Your task to perform on an android device: change alarm snooze length Image 0: 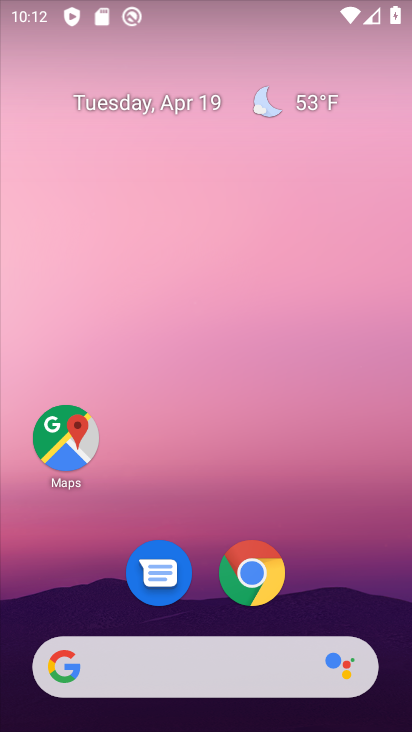
Step 0: drag from (200, 722) to (200, 90)
Your task to perform on an android device: change alarm snooze length Image 1: 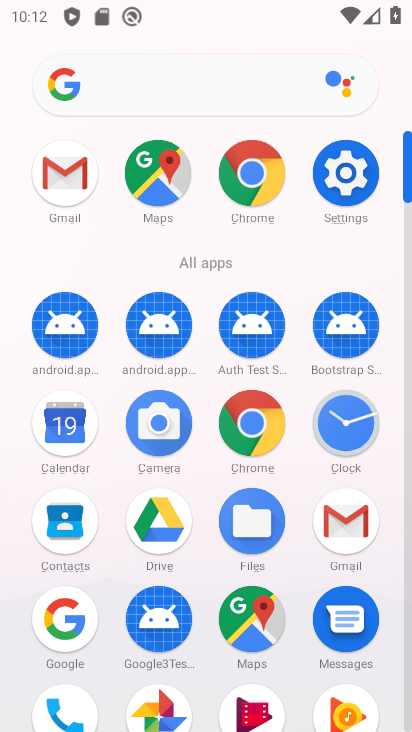
Step 1: click (341, 419)
Your task to perform on an android device: change alarm snooze length Image 2: 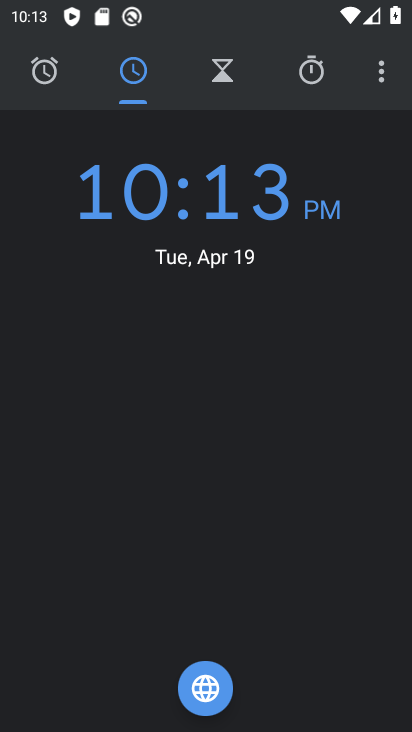
Step 2: click (381, 79)
Your task to perform on an android device: change alarm snooze length Image 3: 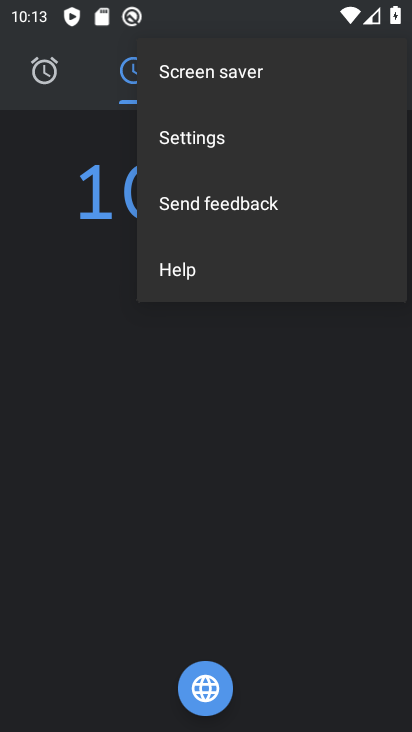
Step 3: click (188, 139)
Your task to perform on an android device: change alarm snooze length Image 4: 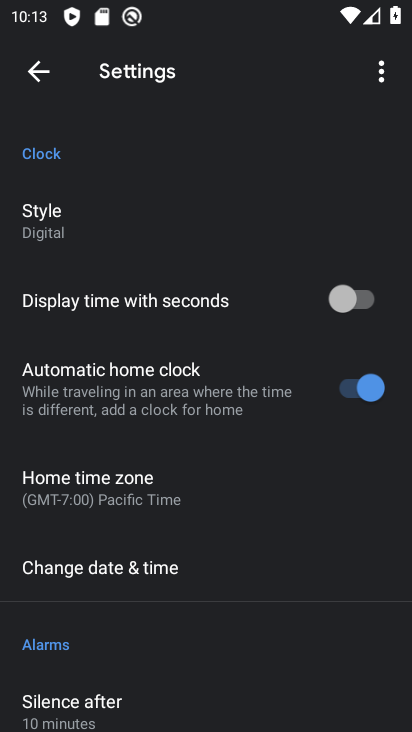
Step 4: drag from (223, 648) to (230, 248)
Your task to perform on an android device: change alarm snooze length Image 5: 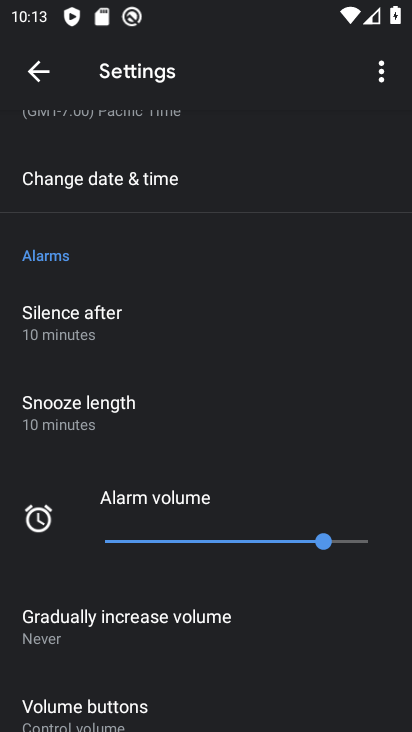
Step 5: drag from (229, 270) to (224, 200)
Your task to perform on an android device: change alarm snooze length Image 6: 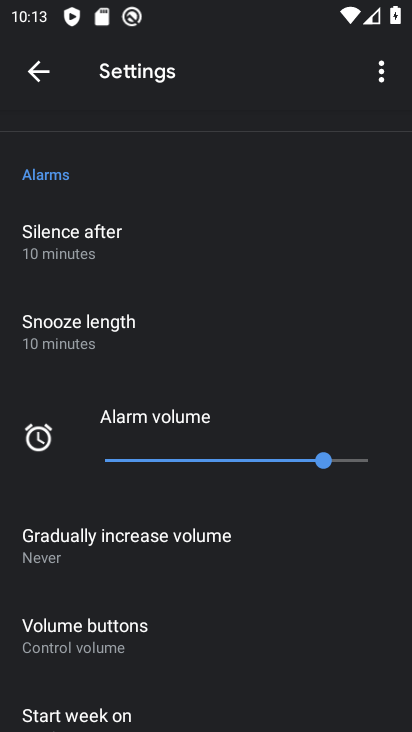
Step 6: click (54, 319)
Your task to perform on an android device: change alarm snooze length Image 7: 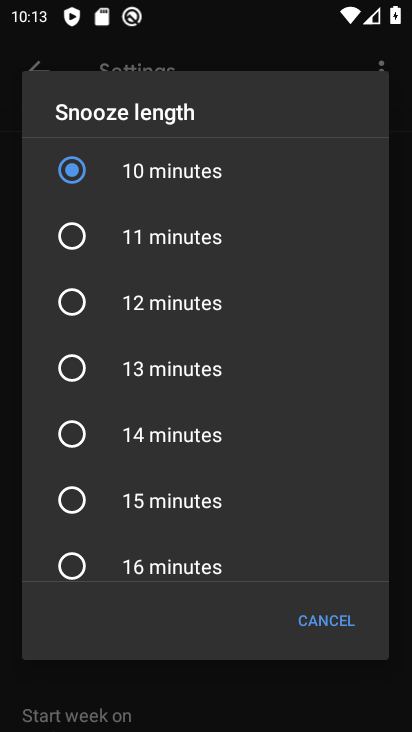
Step 7: click (78, 498)
Your task to perform on an android device: change alarm snooze length Image 8: 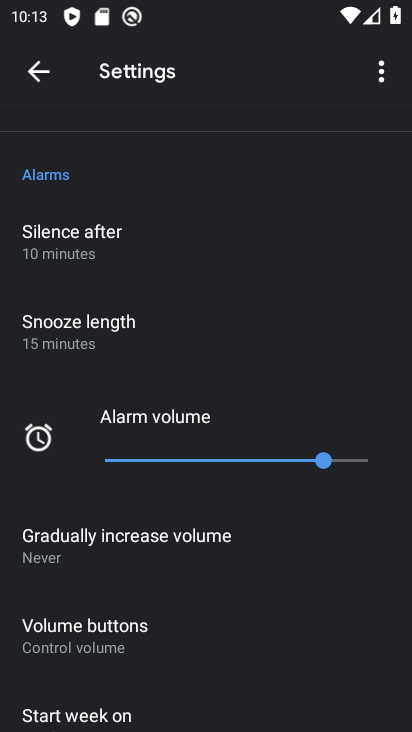
Step 8: task complete